Your task to perform on an android device: Go to settings Image 0: 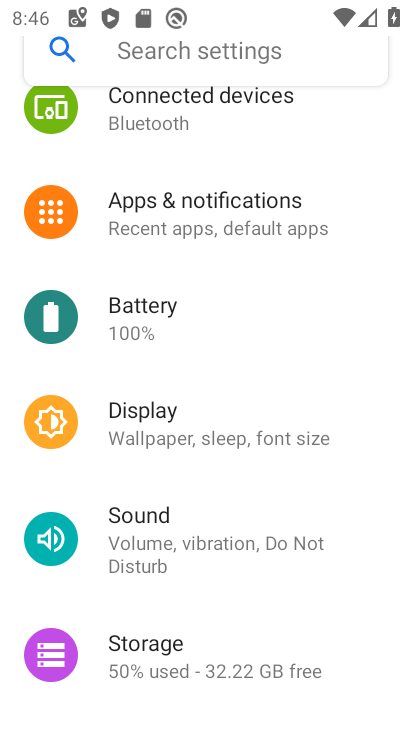
Step 0: drag from (276, 313) to (235, 729)
Your task to perform on an android device: Go to settings Image 1: 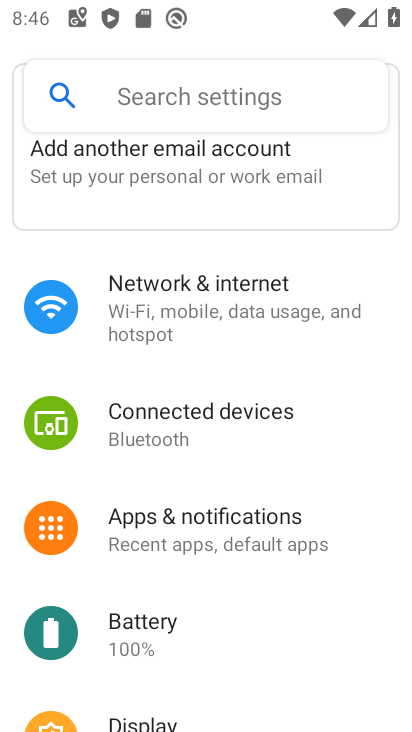
Step 1: task complete